Your task to perform on an android device: Go to sound settings Image 0: 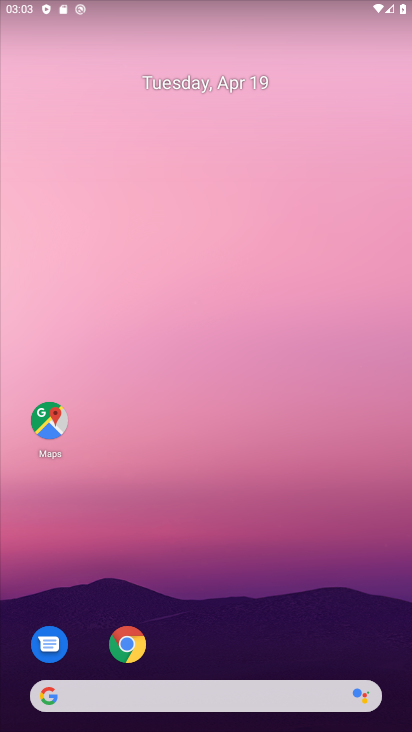
Step 0: drag from (310, 641) to (254, 239)
Your task to perform on an android device: Go to sound settings Image 1: 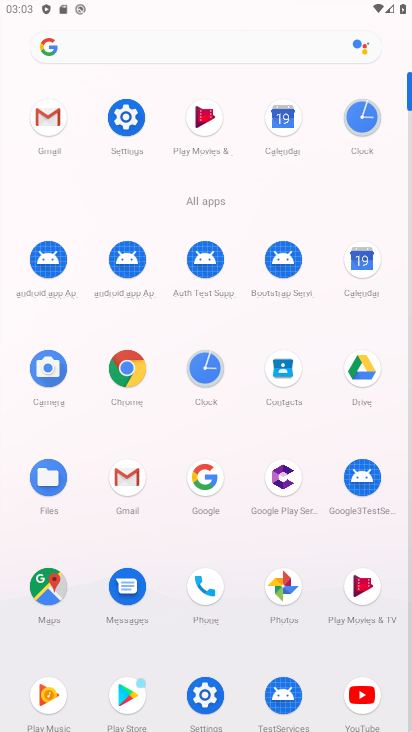
Step 1: click (203, 694)
Your task to perform on an android device: Go to sound settings Image 2: 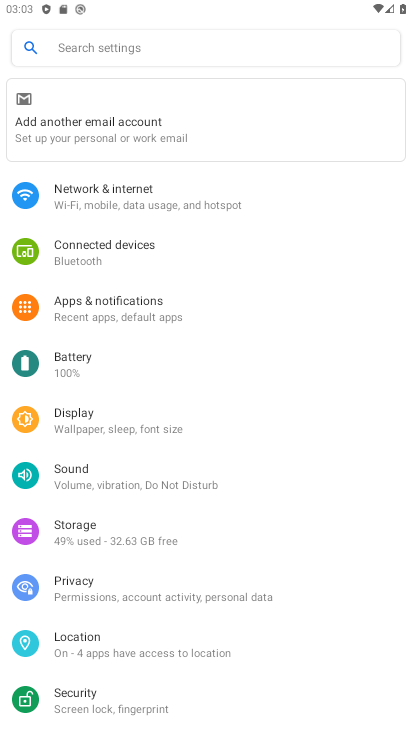
Step 2: click (73, 474)
Your task to perform on an android device: Go to sound settings Image 3: 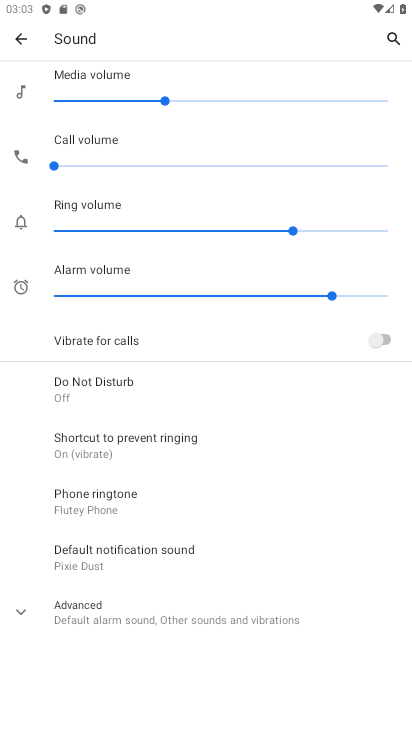
Step 3: drag from (249, 537) to (243, 353)
Your task to perform on an android device: Go to sound settings Image 4: 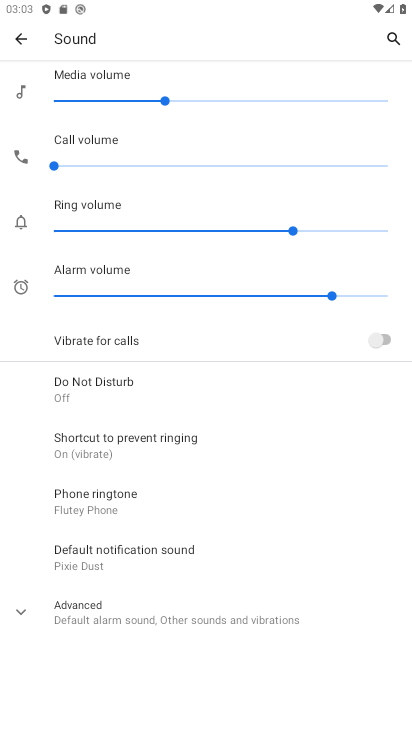
Step 4: click (21, 610)
Your task to perform on an android device: Go to sound settings Image 5: 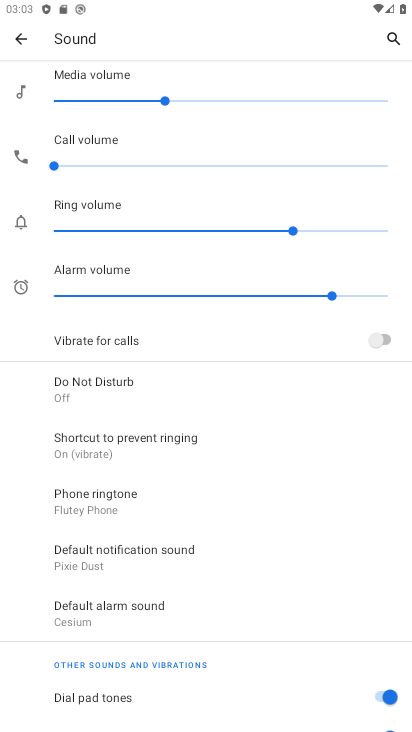
Step 5: task complete